Your task to perform on an android device: find snoozed emails in the gmail app Image 0: 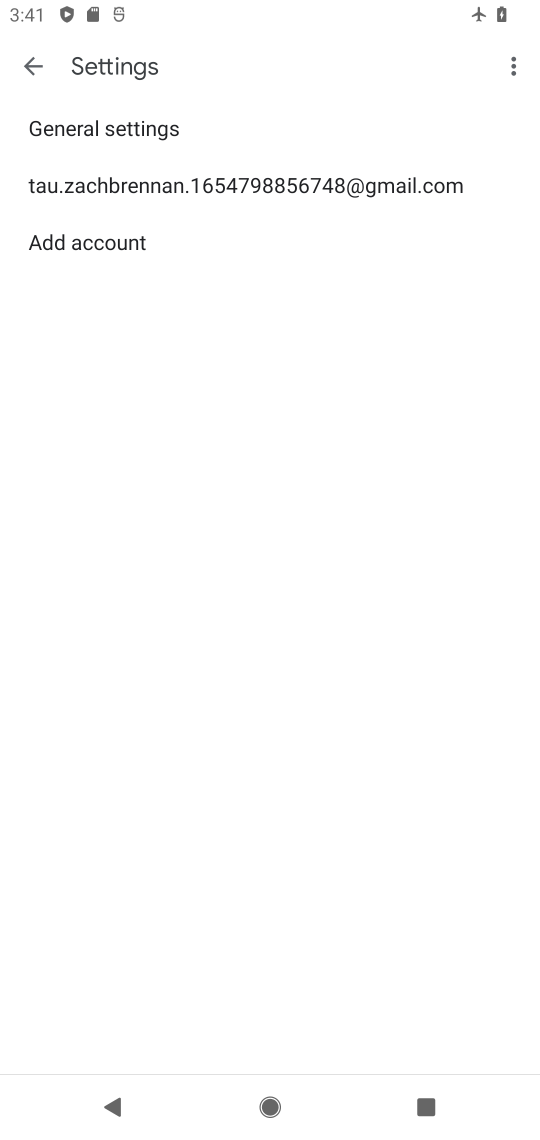
Step 0: press home button
Your task to perform on an android device: find snoozed emails in the gmail app Image 1: 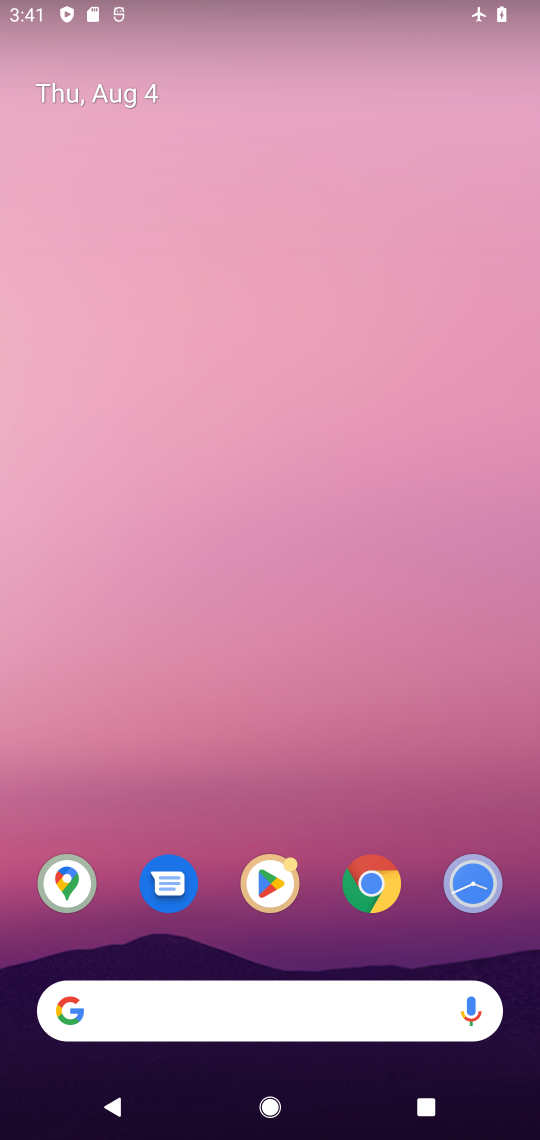
Step 1: drag from (322, 888) to (103, 75)
Your task to perform on an android device: find snoozed emails in the gmail app Image 2: 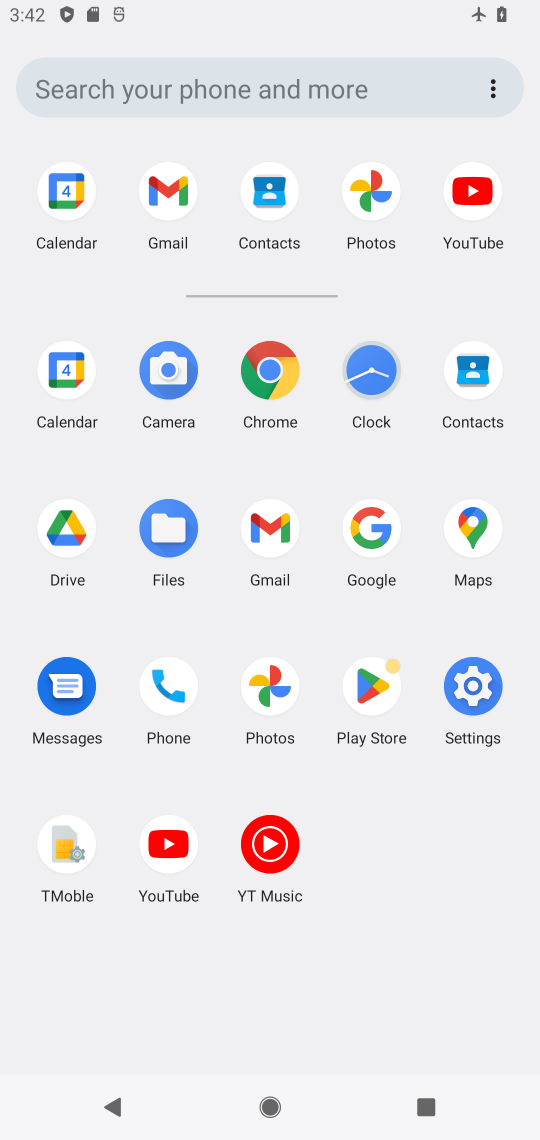
Step 2: click (253, 539)
Your task to perform on an android device: find snoozed emails in the gmail app Image 3: 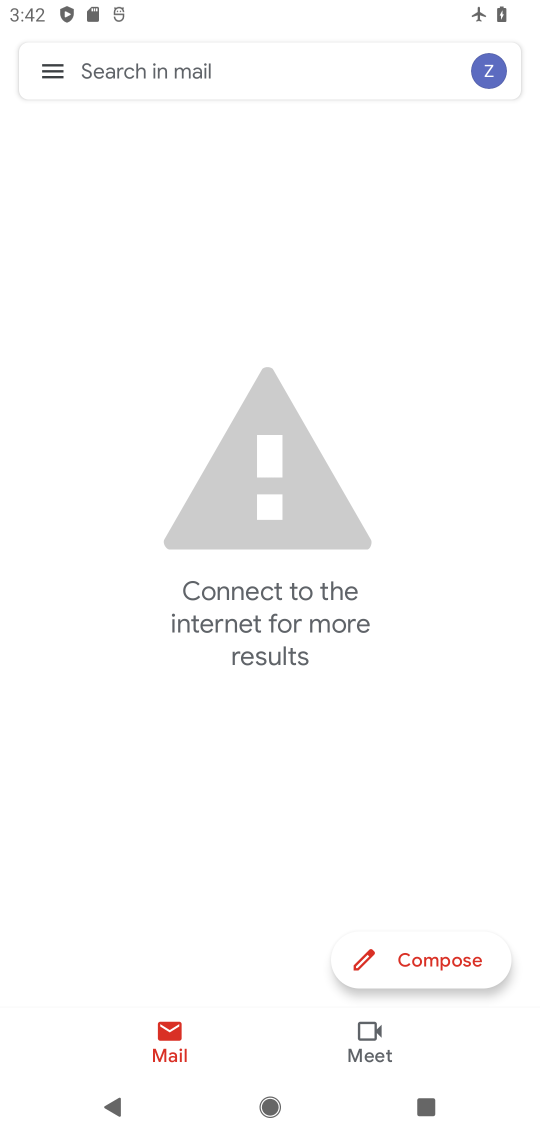
Step 3: task complete